Your task to perform on an android device: add a contact Image 0: 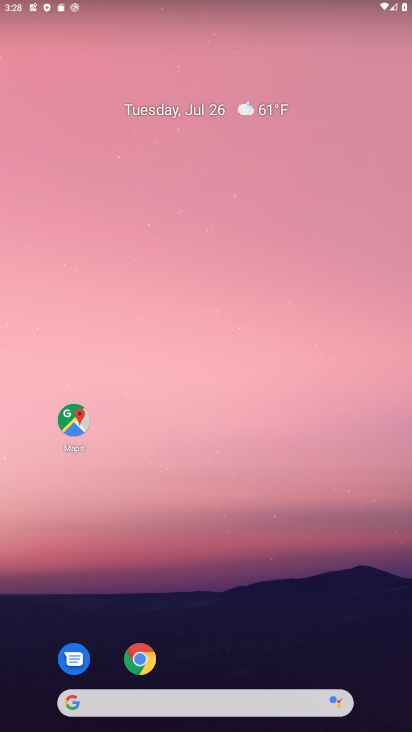
Step 0: drag from (185, 478) to (185, 135)
Your task to perform on an android device: add a contact Image 1: 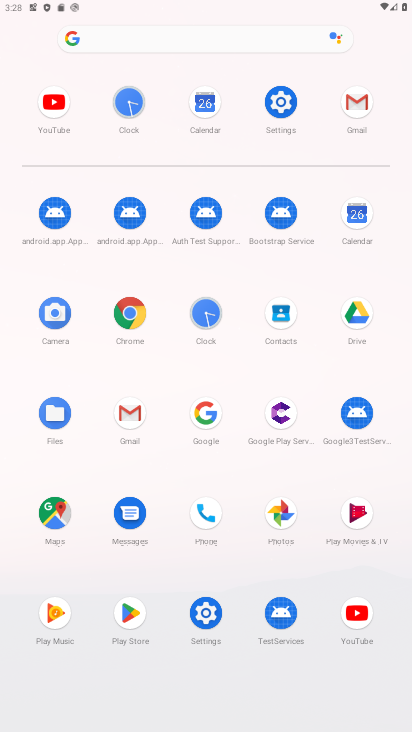
Step 1: click (278, 320)
Your task to perform on an android device: add a contact Image 2: 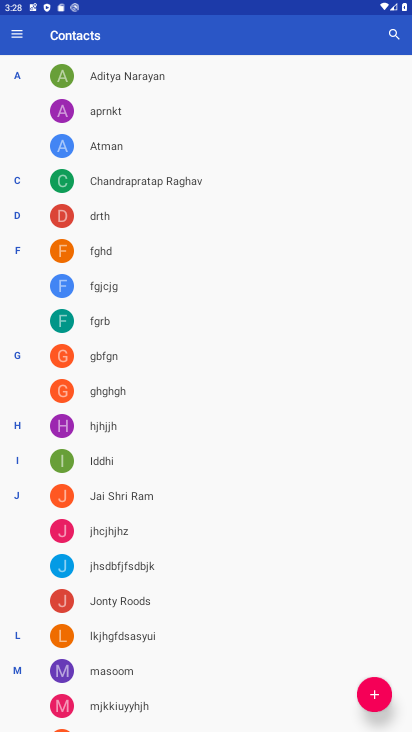
Step 2: click (370, 704)
Your task to perform on an android device: add a contact Image 3: 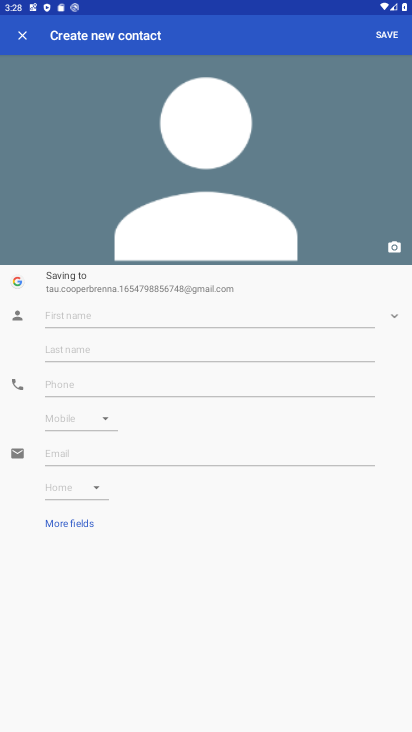
Step 3: click (138, 322)
Your task to perform on an android device: add a contact Image 4: 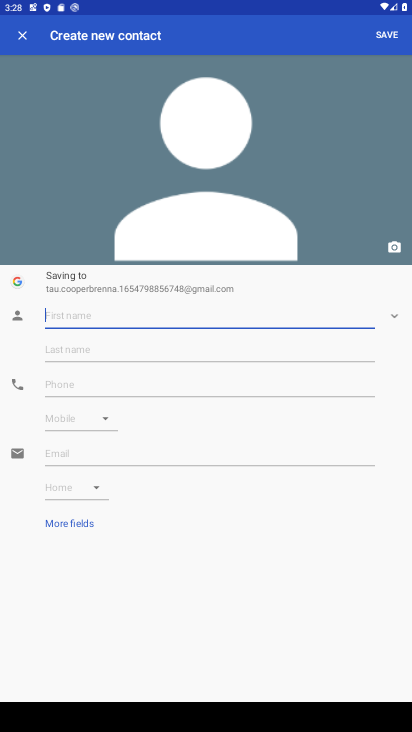
Step 4: type "subu"
Your task to perform on an android device: add a contact Image 5: 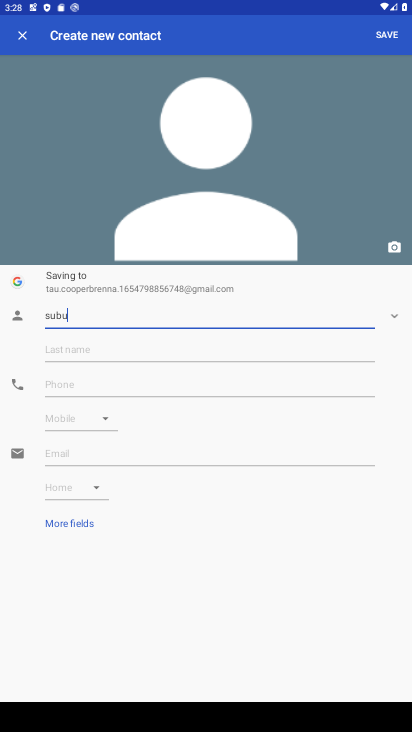
Step 5: click (66, 388)
Your task to perform on an android device: add a contact Image 6: 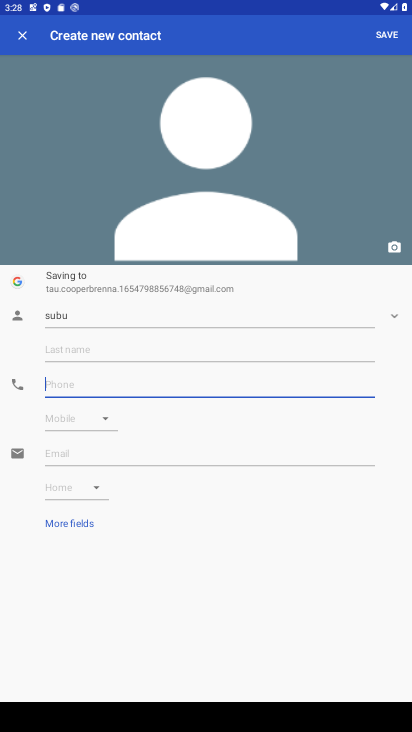
Step 6: type "7887788790"
Your task to perform on an android device: add a contact Image 7: 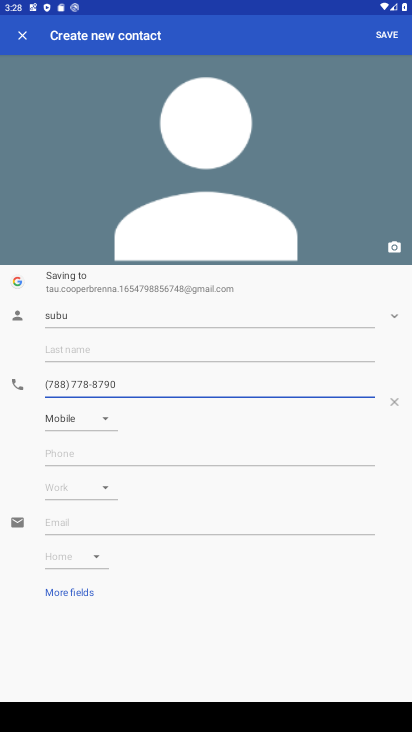
Step 7: click (386, 35)
Your task to perform on an android device: add a contact Image 8: 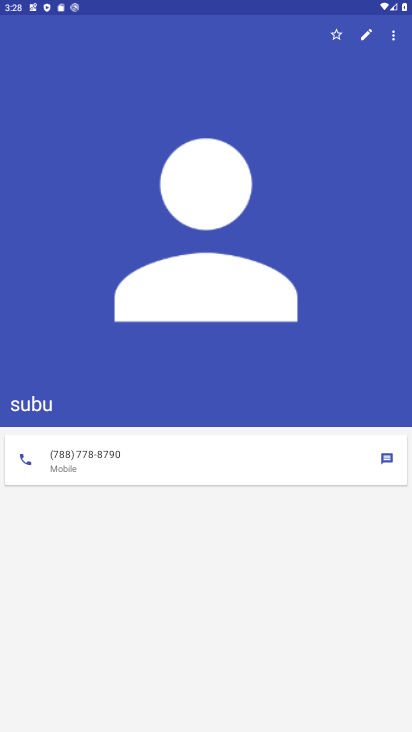
Step 8: task complete